Your task to perform on an android device: What's on my calendar tomorrow? Image 0: 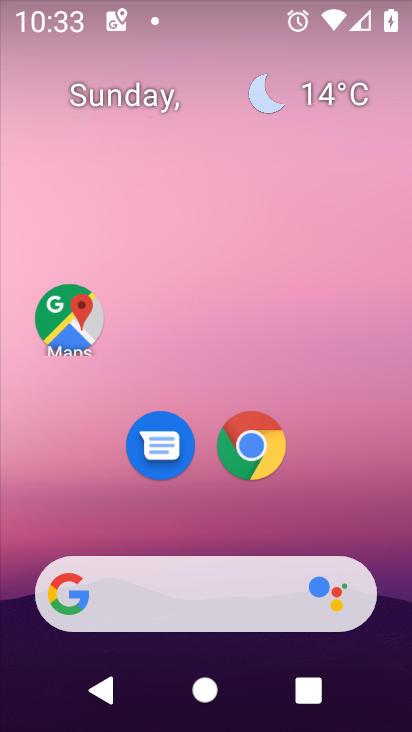
Step 0: drag from (218, 501) to (285, 21)
Your task to perform on an android device: What's on my calendar tomorrow? Image 1: 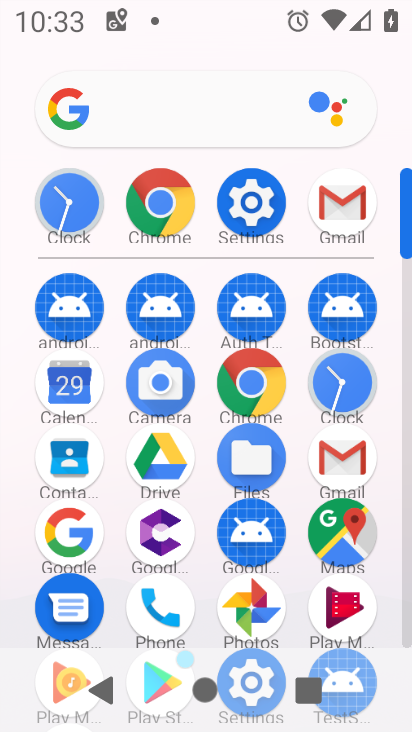
Step 1: click (91, 377)
Your task to perform on an android device: What's on my calendar tomorrow? Image 2: 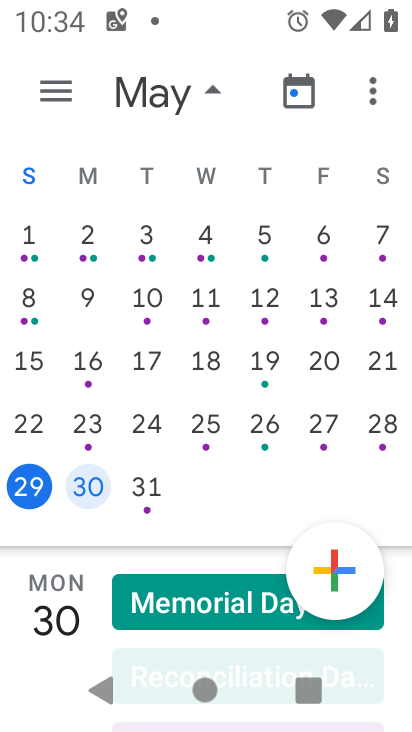
Step 2: click (88, 498)
Your task to perform on an android device: What's on my calendar tomorrow? Image 3: 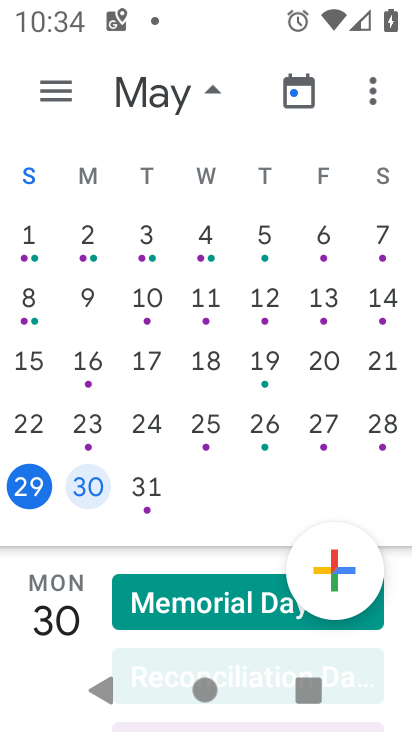
Step 3: task complete